Your task to perform on an android device: Open sound settings Image 0: 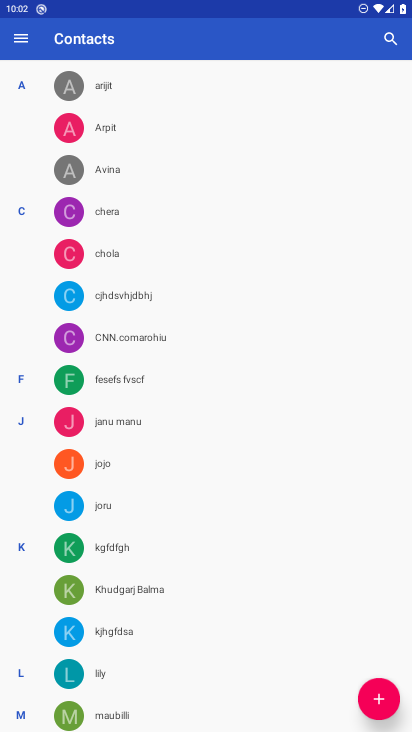
Step 0: press home button
Your task to perform on an android device: Open sound settings Image 1: 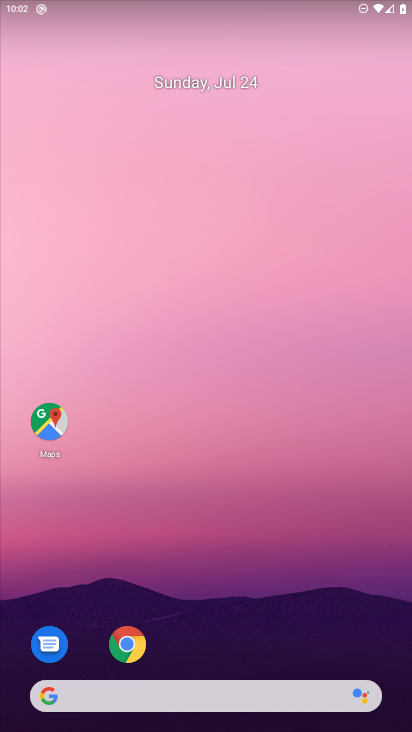
Step 1: drag from (293, 682) to (274, 21)
Your task to perform on an android device: Open sound settings Image 2: 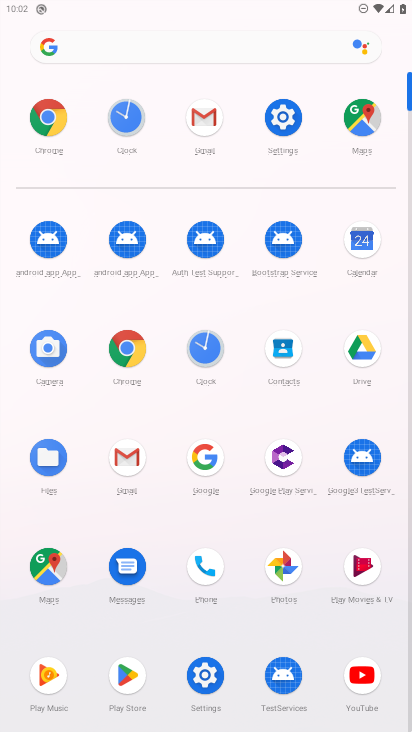
Step 2: click (183, 677)
Your task to perform on an android device: Open sound settings Image 3: 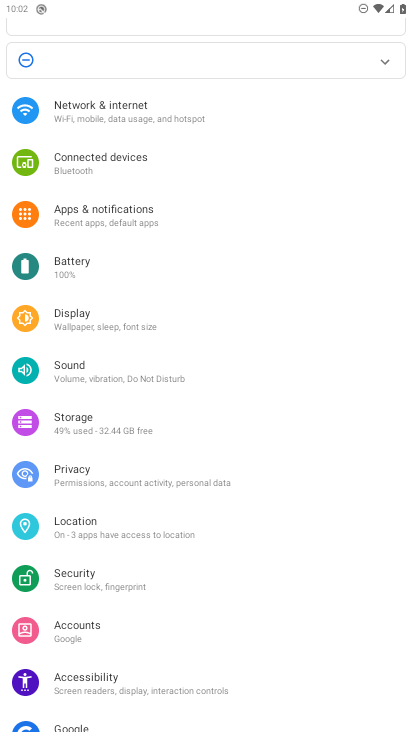
Step 3: click (37, 374)
Your task to perform on an android device: Open sound settings Image 4: 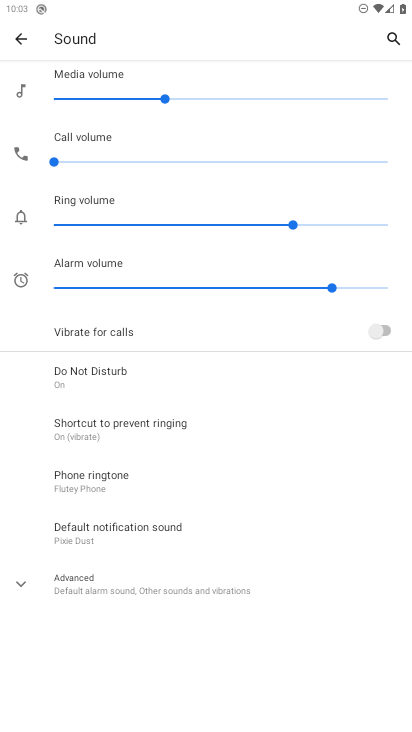
Step 4: task complete